Your task to perform on an android device: open chrome privacy settings Image 0: 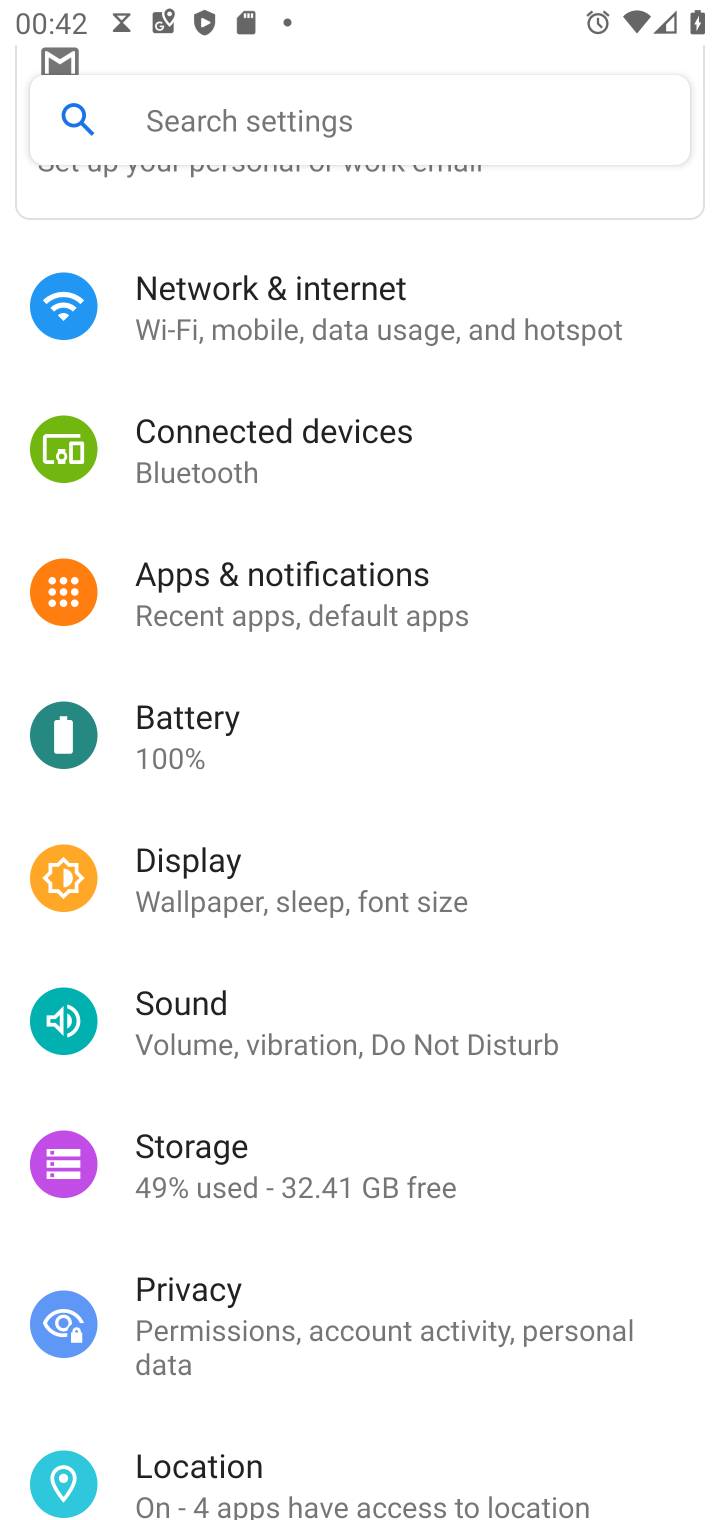
Step 0: click (253, 1310)
Your task to perform on an android device: open chrome privacy settings Image 1: 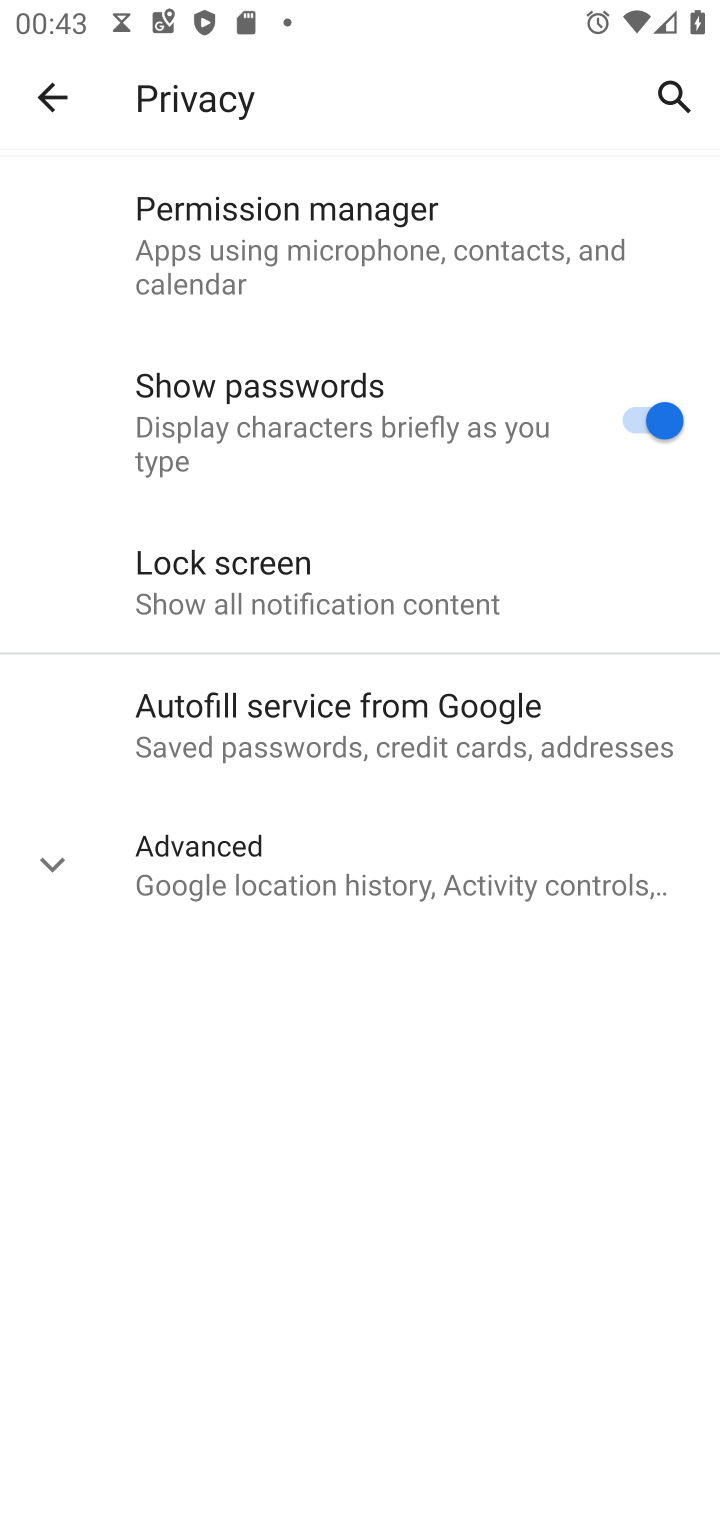
Step 1: task complete